Your task to perform on an android device: show emergency info Image 0: 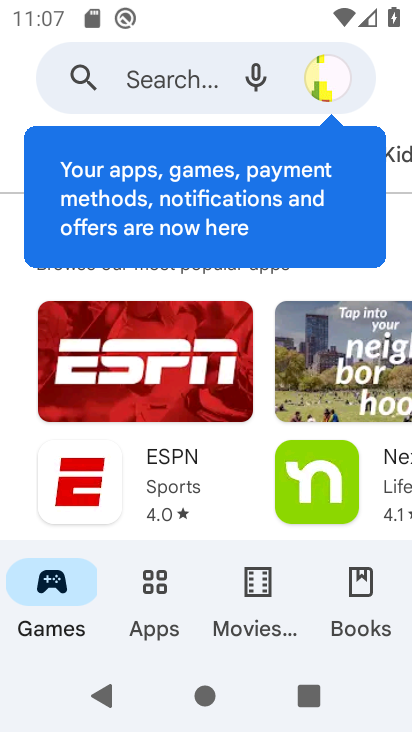
Step 0: press back button
Your task to perform on an android device: show emergency info Image 1: 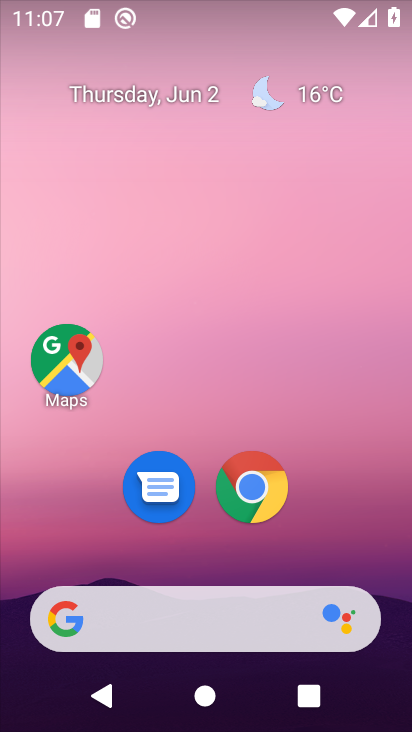
Step 1: drag from (310, 533) to (213, 159)
Your task to perform on an android device: show emergency info Image 2: 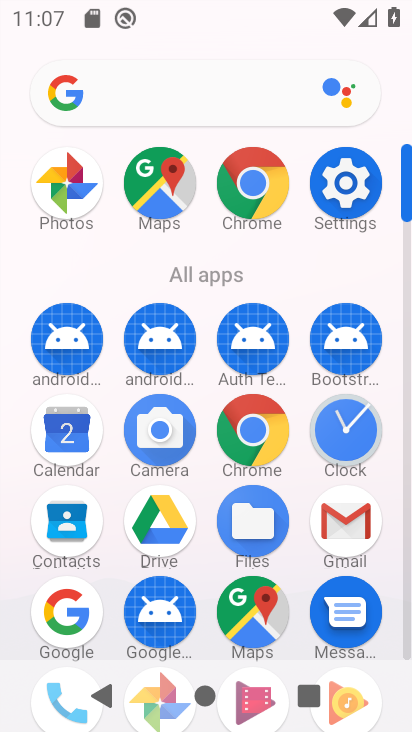
Step 2: click (346, 181)
Your task to perform on an android device: show emergency info Image 3: 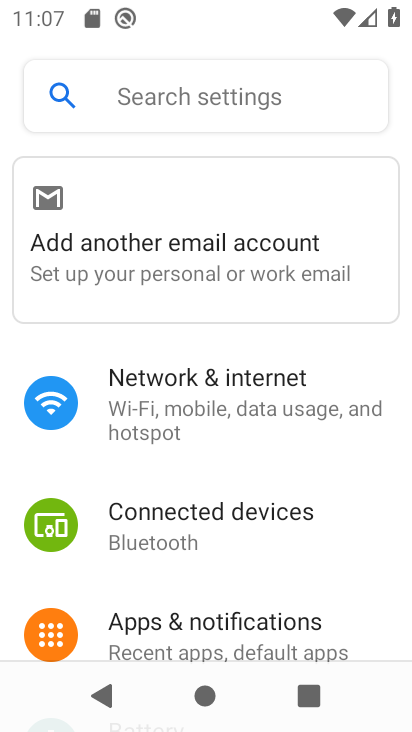
Step 3: drag from (223, 454) to (220, 323)
Your task to perform on an android device: show emergency info Image 4: 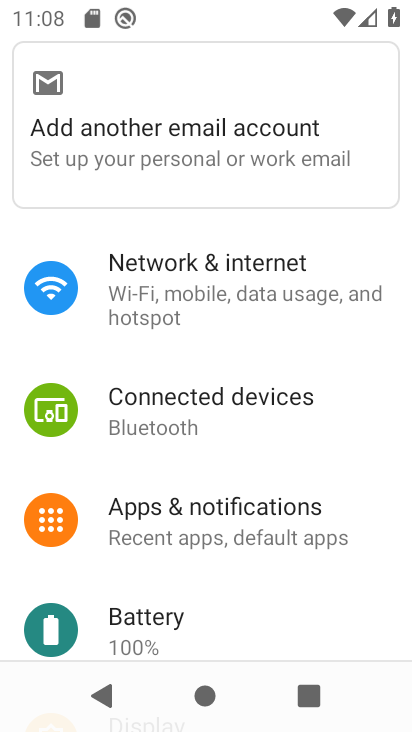
Step 4: drag from (198, 464) to (208, 353)
Your task to perform on an android device: show emergency info Image 5: 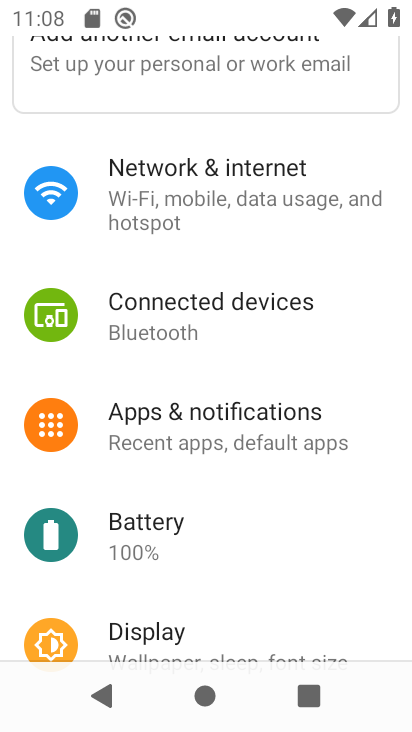
Step 5: drag from (195, 479) to (204, 369)
Your task to perform on an android device: show emergency info Image 6: 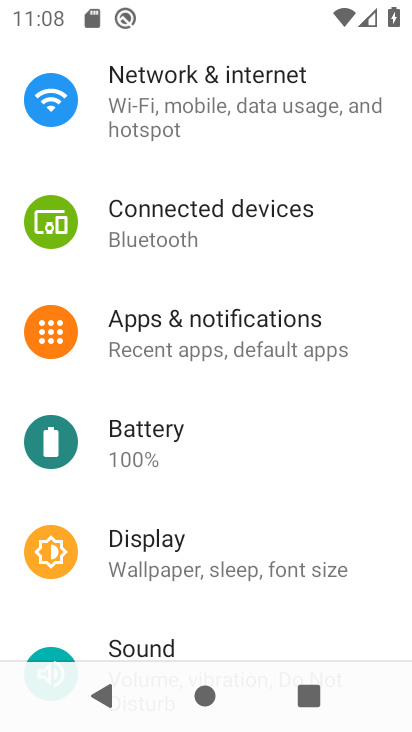
Step 6: drag from (205, 497) to (230, 376)
Your task to perform on an android device: show emergency info Image 7: 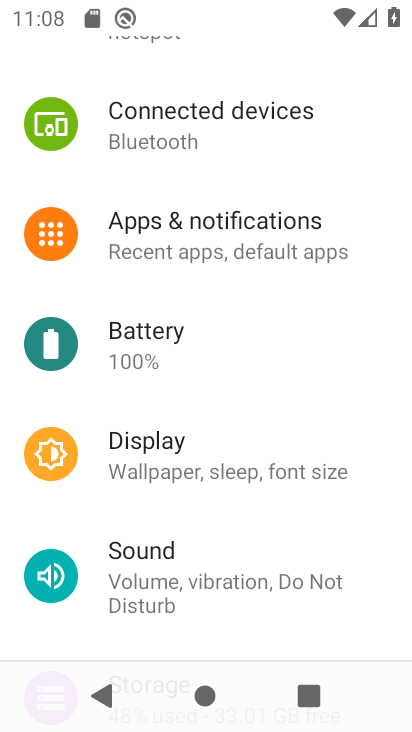
Step 7: drag from (227, 399) to (239, 286)
Your task to perform on an android device: show emergency info Image 8: 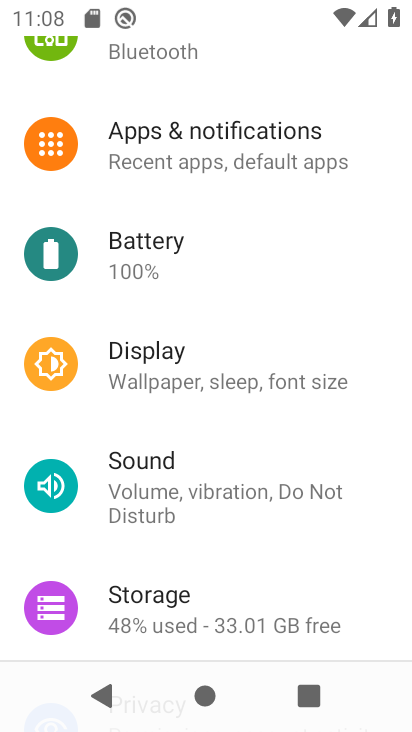
Step 8: drag from (201, 423) to (186, 279)
Your task to perform on an android device: show emergency info Image 9: 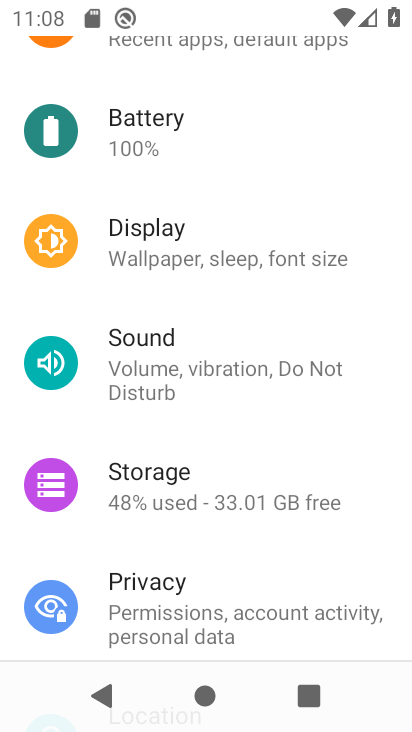
Step 9: drag from (185, 431) to (202, 291)
Your task to perform on an android device: show emergency info Image 10: 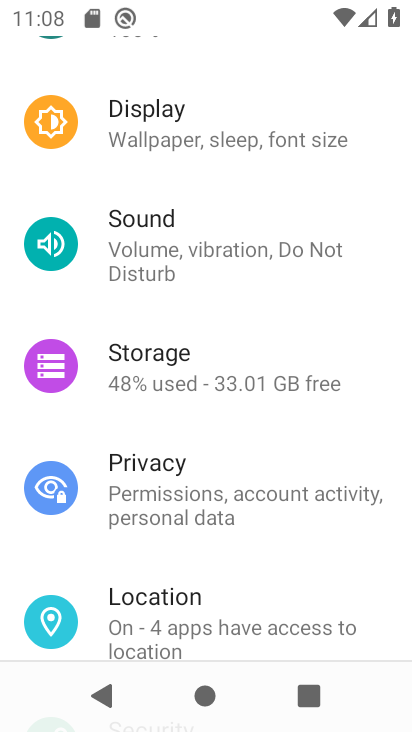
Step 10: drag from (192, 411) to (254, 290)
Your task to perform on an android device: show emergency info Image 11: 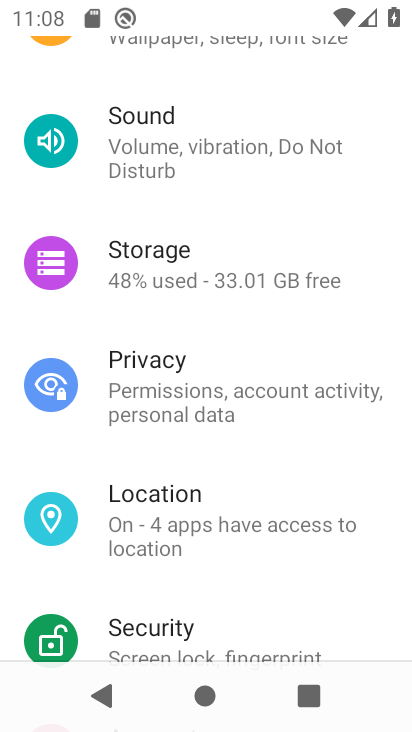
Step 11: drag from (194, 456) to (265, 315)
Your task to perform on an android device: show emergency info Image 12: 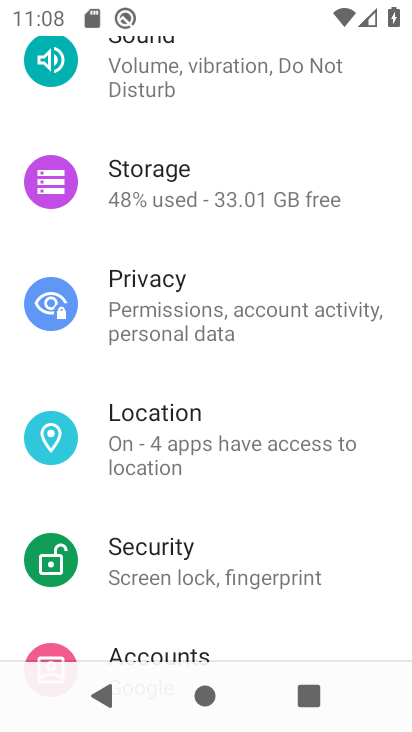
Step 12: drag from (219, 380) to (301, 262)
Your task to perform on an android device: show emergency info Image 13: 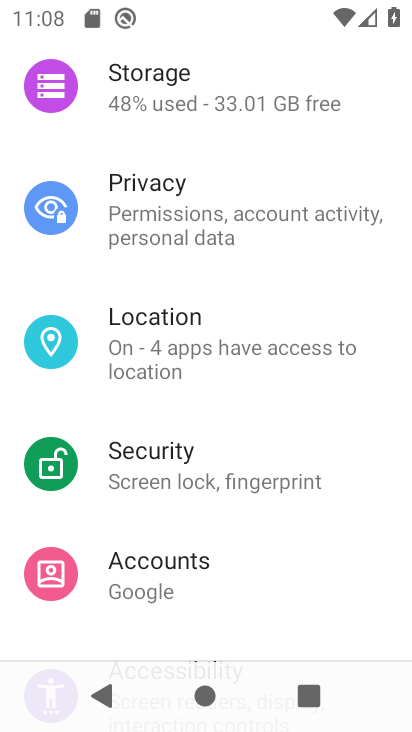
Step 13: drag from (203, 408) to (309, 271)
Your task to perform on an android device: show emergency info Image 14: 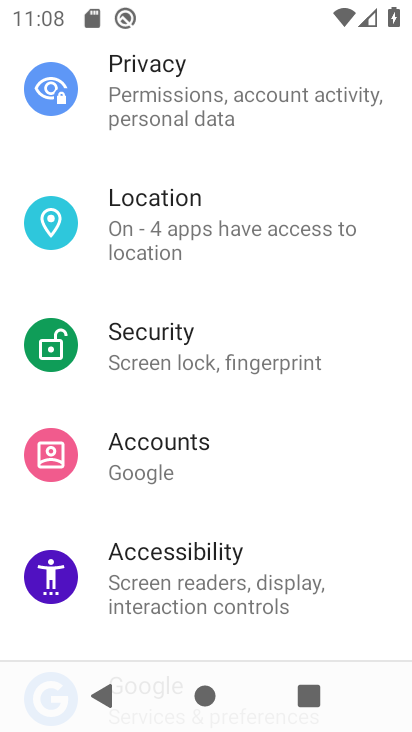
Step 14: drag from (181, 408) to (264, 281)
Your task to perform on an android device: show emergency info Image 15: 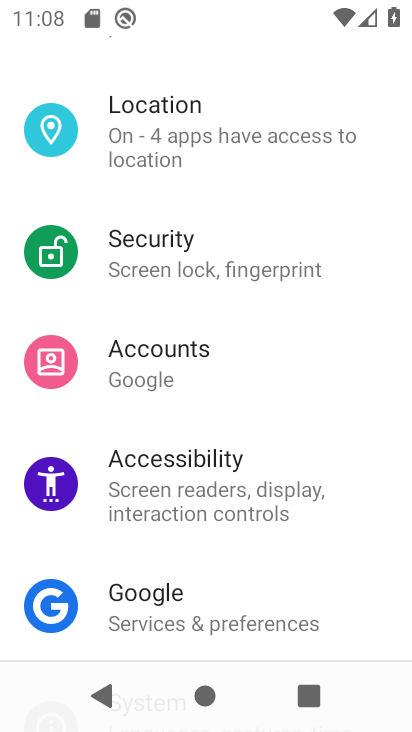
Step 15: drag from (177, 426) to (258, 279)
Your task to perform on an android device: show emergency info Image 16: 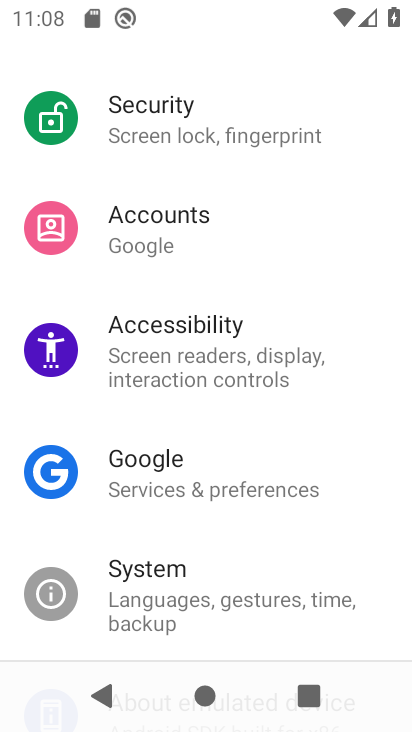
Step 16: drag from (190, 421) to (236, 259)
Your task to perform on an android device: show emergency info Image 17: 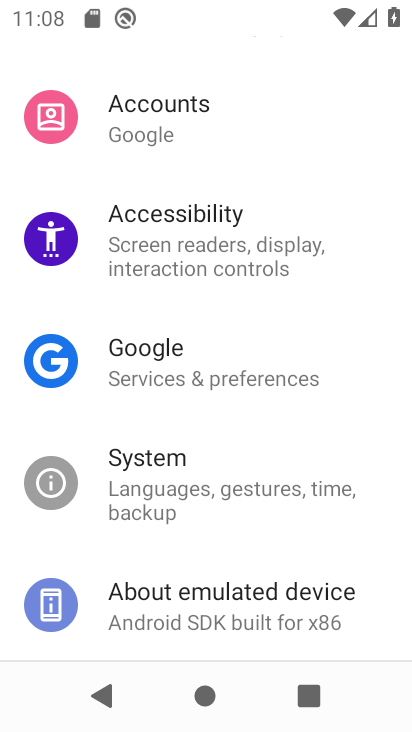
Step 17: drag from (164, 424) to (243, 327)
Your task to perform on an android device: show emergency info Image 18: 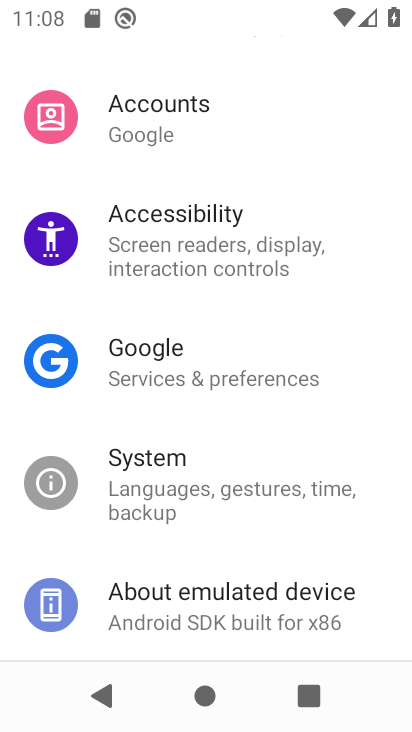
Step 18: click (213, 593)
Your task to perform on an android device: show emergency info Image 19: 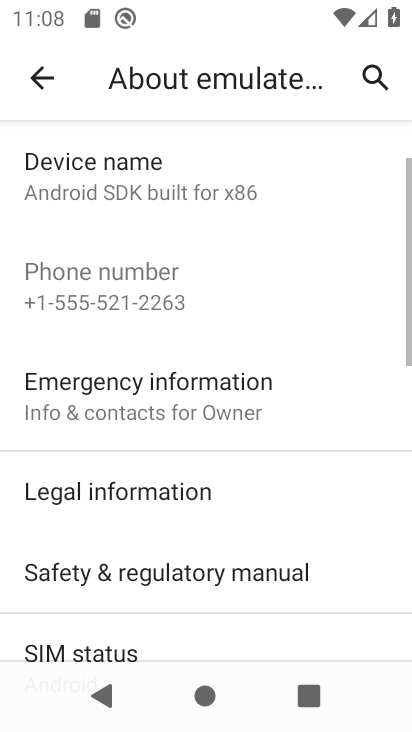
Step 19: click (202, 384)
Your task to perform on an android device: show emergency info Image 20: 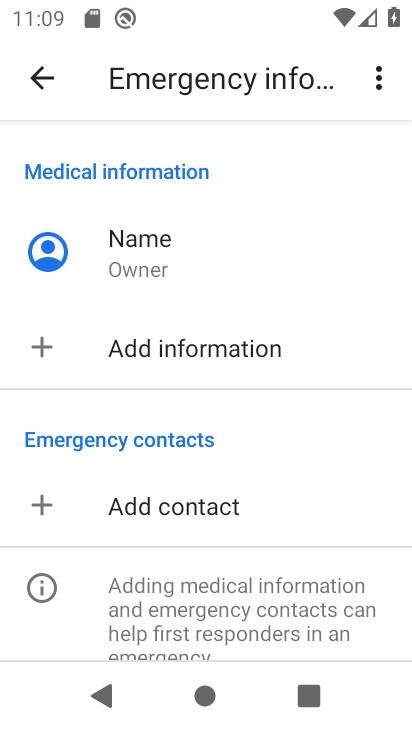
Step 20: task complete